Your task to perform on an android device: change your default location settings in chrome Image 0: 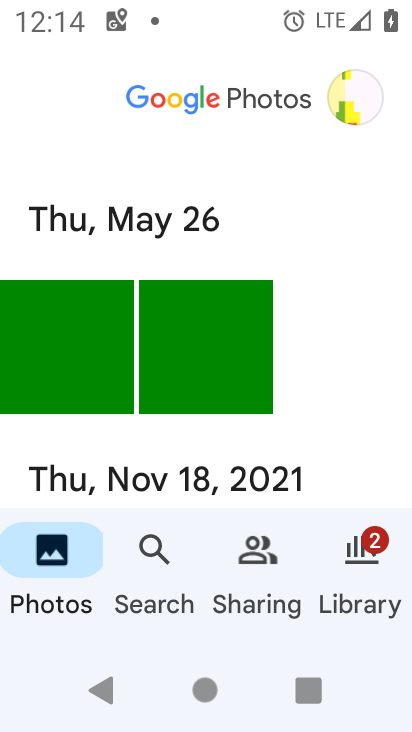
Step 0: drag from (290, 469) to (290, 188)
Your task to perform on an android device: change your default location settings in chrome Image 1: 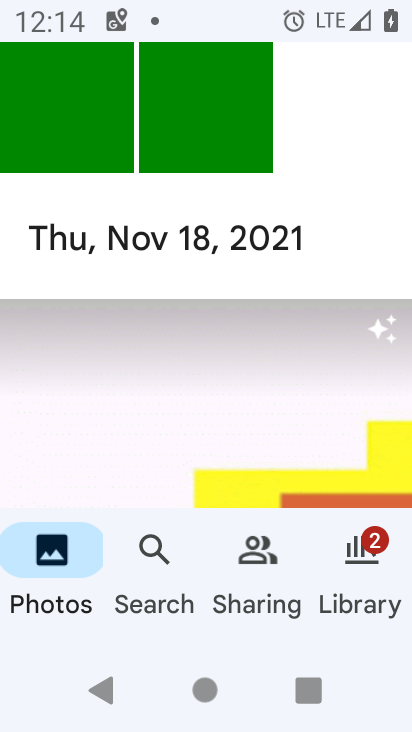
Step 1: drag from (238, 454) to (223, 123)
Your task to perform on an android device: change your default location settings in chrome Image 2: 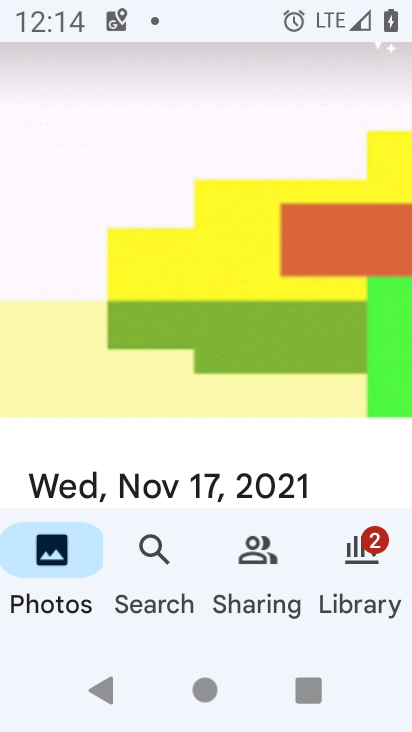
Step 2: drag from (289, 251) to (364, 554)
Your task to perform on an android device: change your default location settings in chrome Image 3: 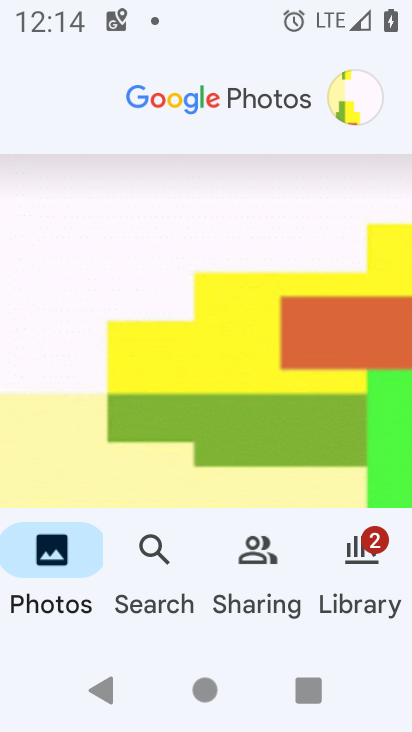
Step 3: drag from (212, 233) to (237, 717)
Your task to perform on an android device: change your default location settings in chrome Image 4: 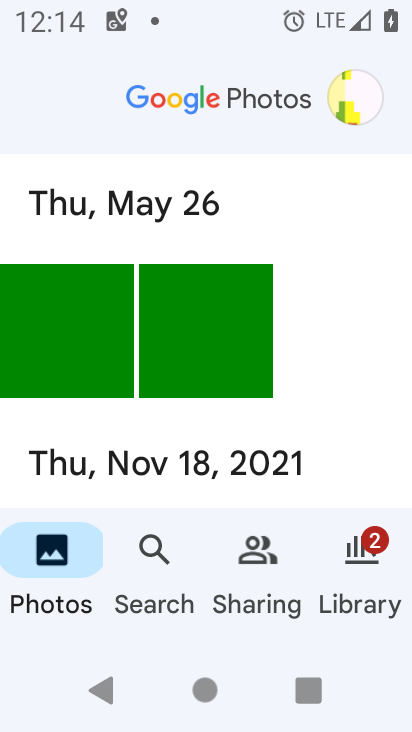
Step 4: drag from (227, 216) to (288, 493)
Your task to perform on an android device: change your default location settings in chrome Image 5: 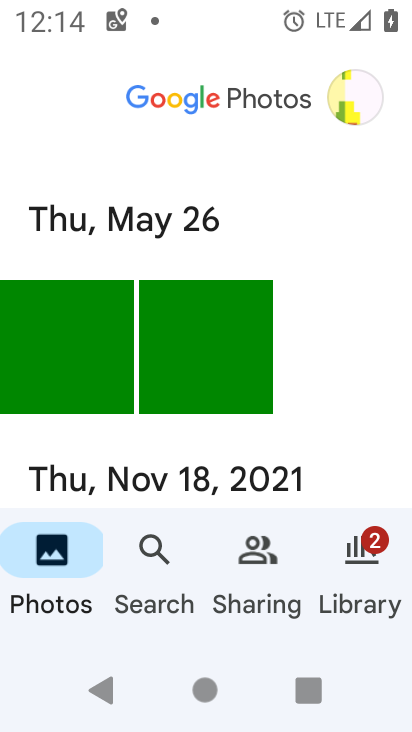
Step 5: drag from (309, 438) to (238, 135)
Your task to perform on an android device: change your default location settings in chrome Image 6: 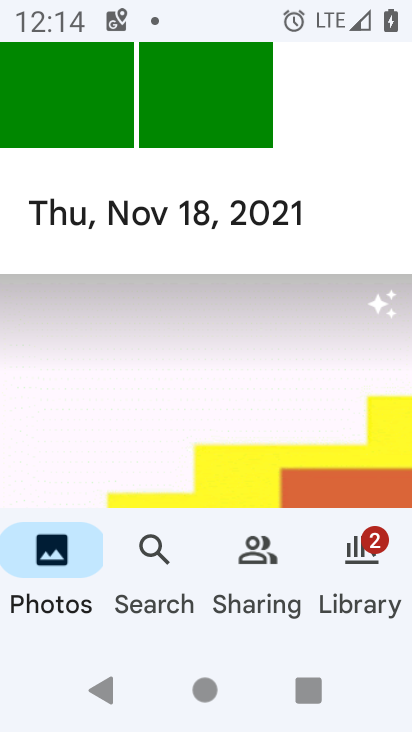
Step 6: drag from (260, 267) to (403, 442)
Your task to perform on an android device: change your default location settings in chrome Image 7: 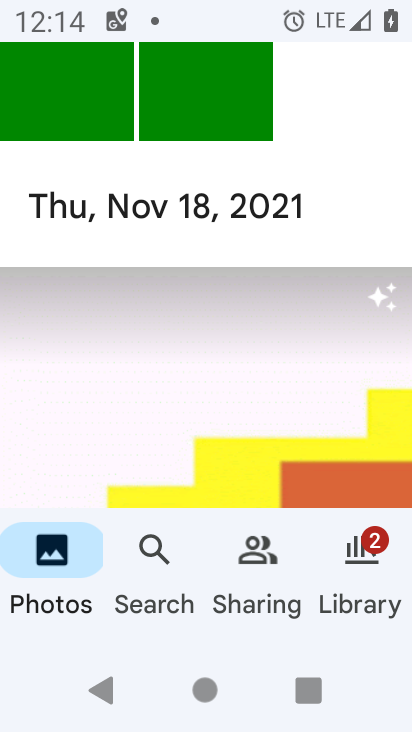
Step 7: drag from (297, 431) to (353, 526)
Your task to perform on an android device: change your default location settings in chrome Image 8: 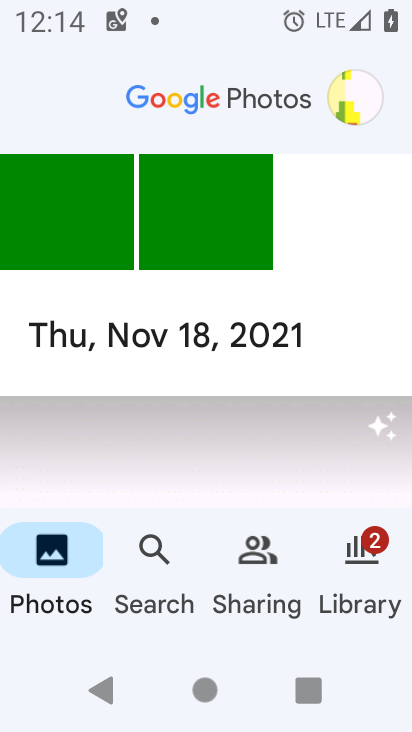
Step 8: drag from (292, 257) to (336, 495)
Your task to perform on an android device: change your default location settings in chrome Image 9: 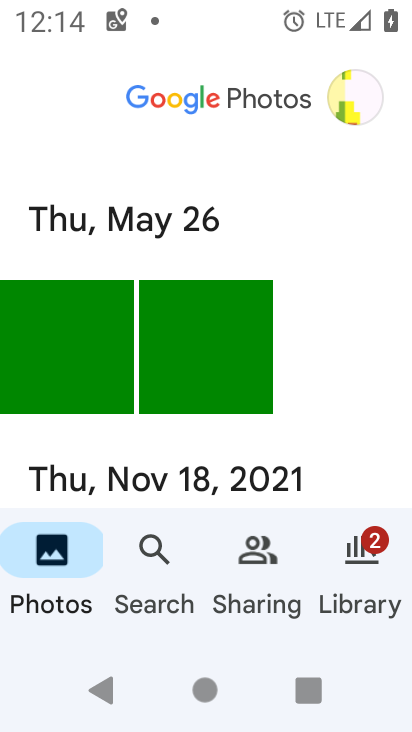
Step 9: click (347, 109)
Your task to perform on an android device: change your default location settings in chrome Image 10: 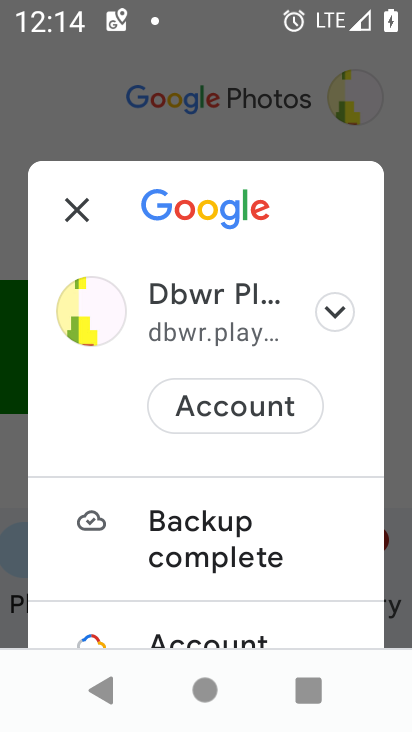
Step 10: drag from (178, 587) to (232, 106)
Your task to perform on an android device: change your default location settings in chrome Image 11: 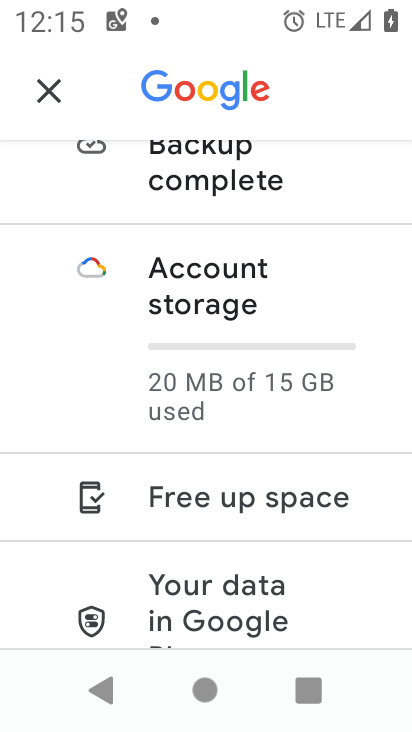
Step 11: press home button
Your task to perform on an android device: change your default location settings in chrome Image 12: 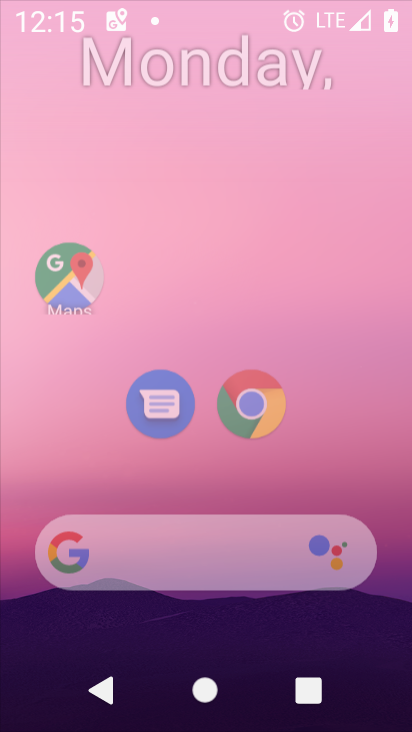
Step 12: drag from (174, 561) to (242, 18)
Your task to perform on an android device: change your default location settings in chrome Image 13: 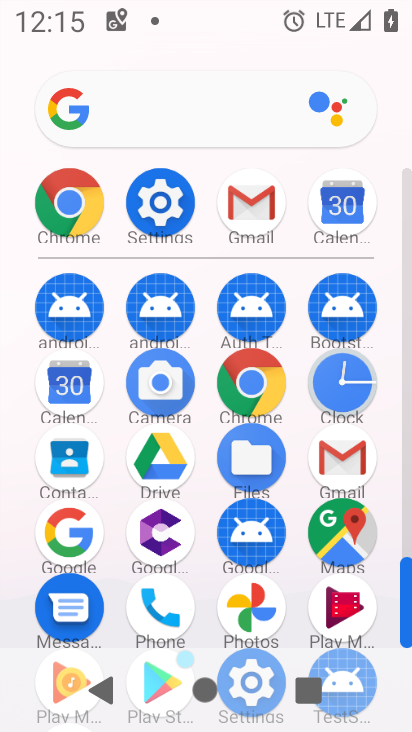
Step 13: click (243, 376)
Your task to perform on an android device: change your default location settings in chrome Image 14: 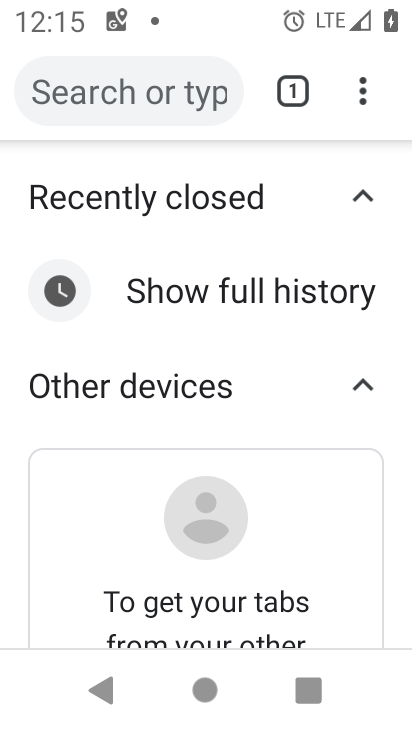
Step 14: drag from (232, 591) to (395, 728)
Your task to perform on an android device: change your default location settings in chrome Image 15: 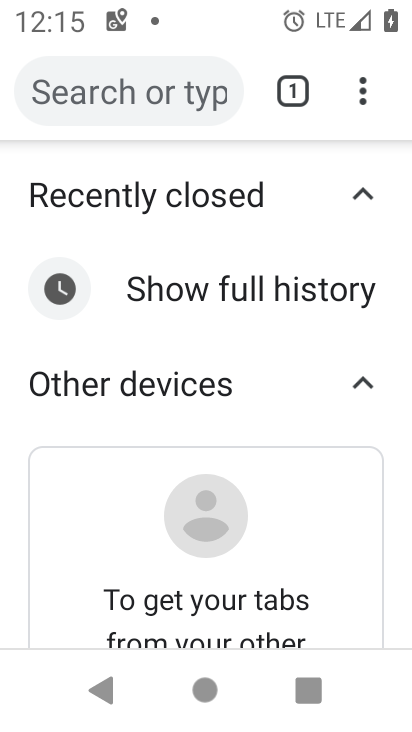
Step 15: drag from (358, 80) to (166, 472)
Your task to perform on an android device: change your default location settings in chrome Image 16: 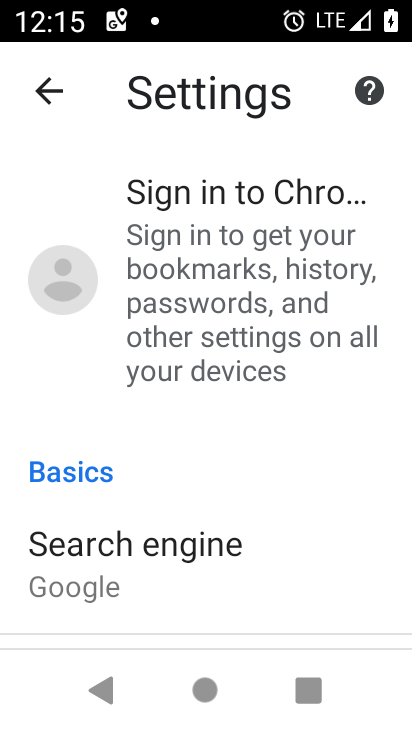
Step 16: drag from (153, 568) to (206, 203)
Your task to perform on an android device: change your default location settings in chrome Image 17: 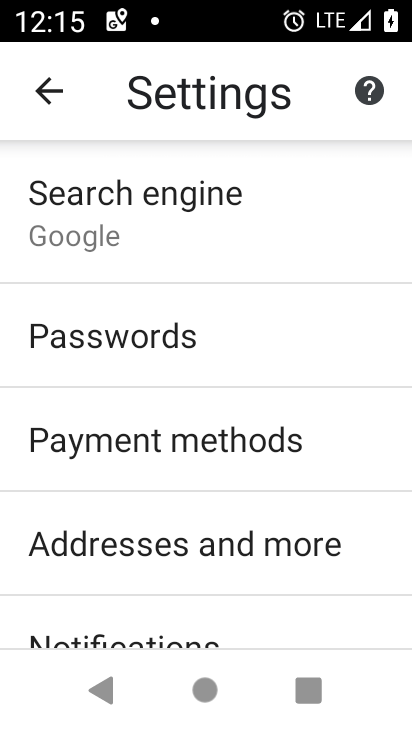
Step 17: drag from (221, 555) to (234, 114)
Your task to perform on an android device: change your default location settings in chrome Image 18: 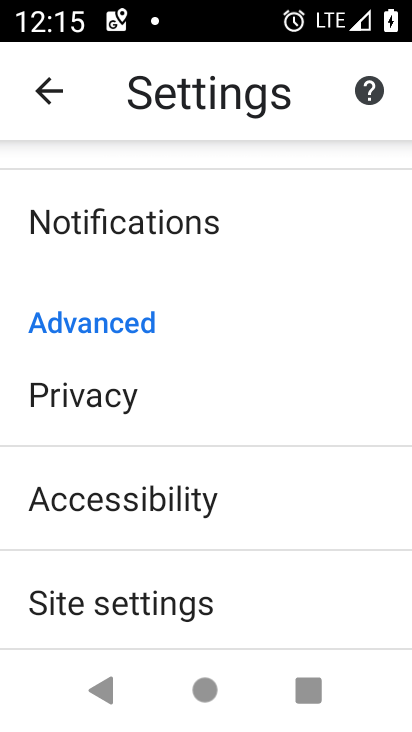
Step 18: drag from (238, 516) to (251, 272)
Your task to perform on an android device: change your default location settings in chrome Image 19: 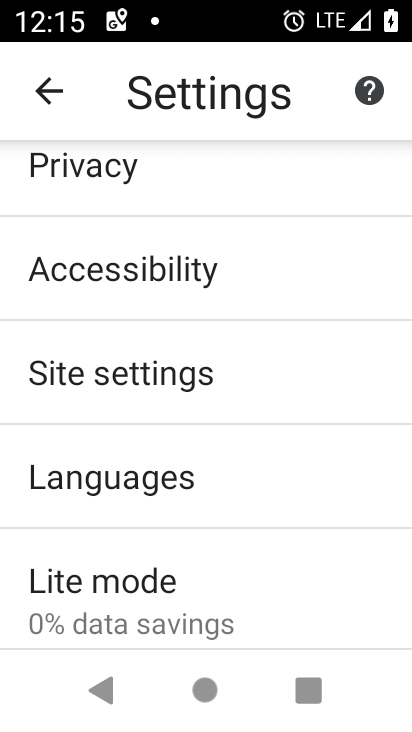
Step 19: click (198, 373)
Your task to perform on an android device: change your default location settings in chrome Image 20: 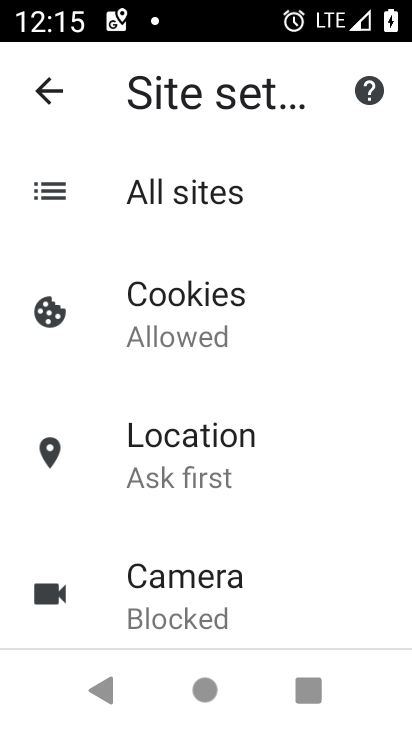
Step 20: click (230, 453)
Your task to perform on an android device: change your default location settings in chrome Image 21: 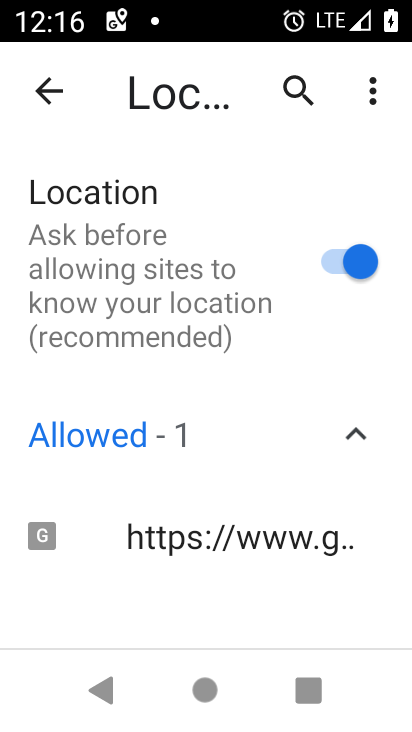
Step 21: click (340, 256)
Your task to perform on an android device: change your default location settings in chrome Image 22: 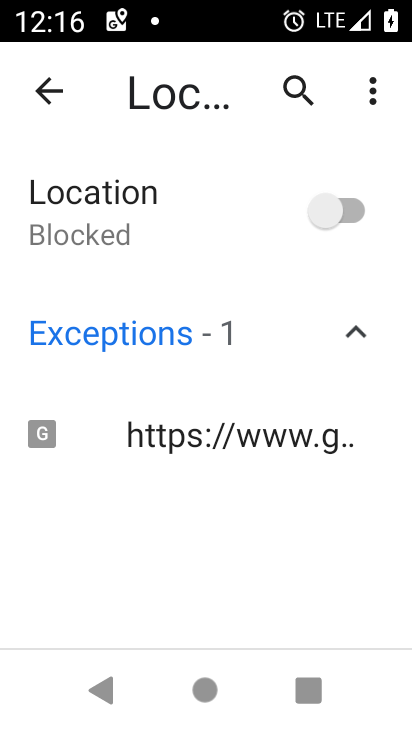
Step 22: task complete